Your task to perform on an android device: Open location settings Image 0: 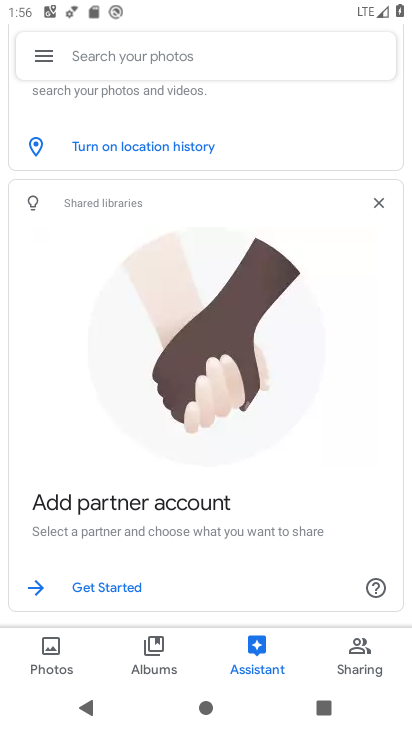
Step 0: press home button
Your task to perform on an android device: Open location settings Image 1: 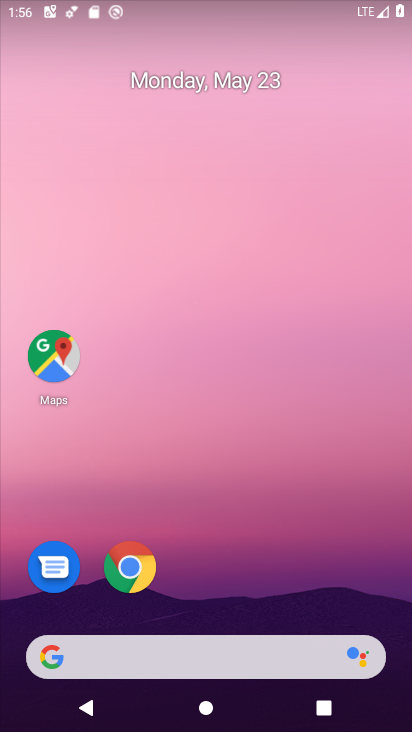
Step 1: drag from (220, 568) to (285, 198)
Your task to perform on an android device: Open location settings Image 2: 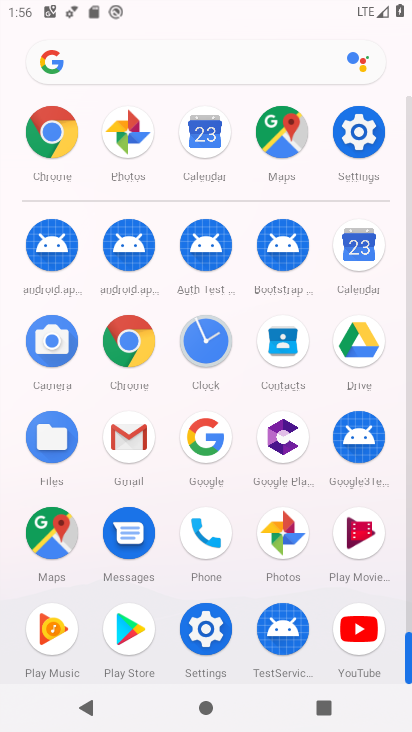
Step 2: click (362, 144)
Your task to perform on an android device: Open location settings Image 3: 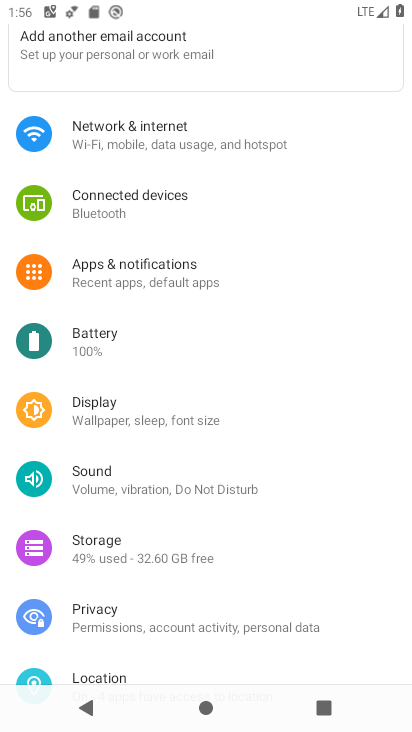
Step 3: drag from (102, 675) to (171, 450)
Your task to perform on an android device: Open location settings Image 4: 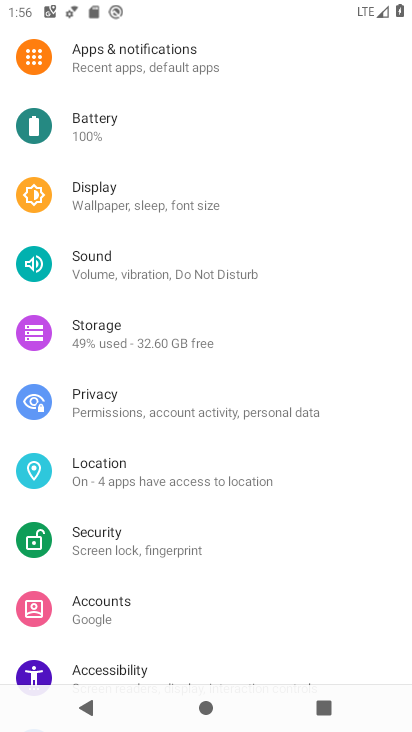
Step 4: click (154, 477)
Your task to perform on an android device: Open location settings Image 5: 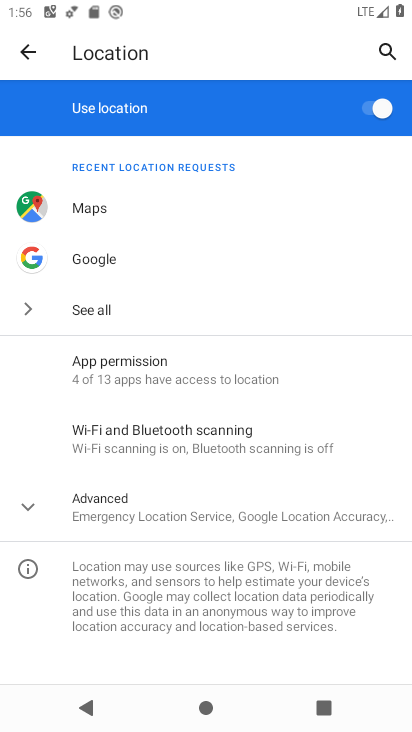
Step 5: task complete